Your task to perform on an android device: check android version Image 0: 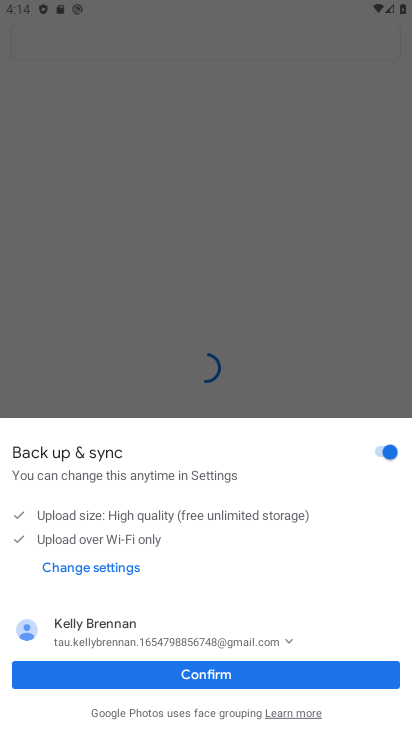
Step 0: press home button
Your task to perform on an android device: check android version Image 1: 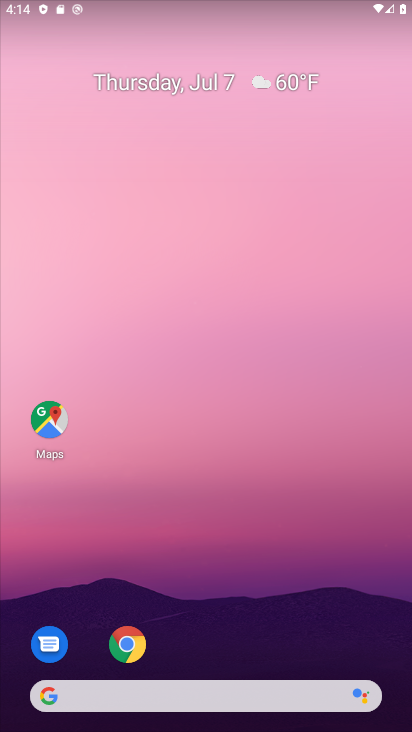
Step 1: drag from (219, 629) to (138, 253)
Your task to perform on an android device: check android version Image 2: 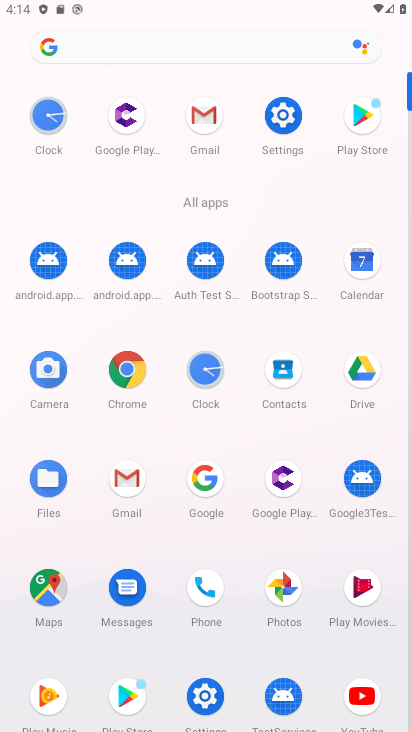
Step 2: click (277, 131)
Your task to perform on an android device: check android version Image 3: 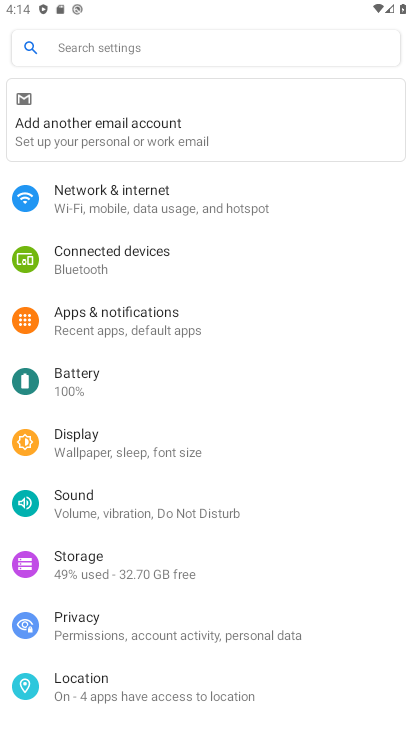
Step 3: drag from (147, 666) to (71, 199)
Your task to perform on an android device: check android version Image 4: 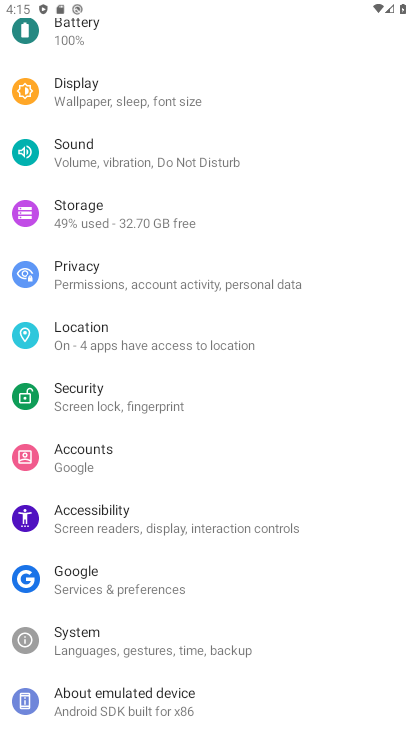
Step 4: click (119, 707)
Your task to perform on an android device: check android version Image 5: 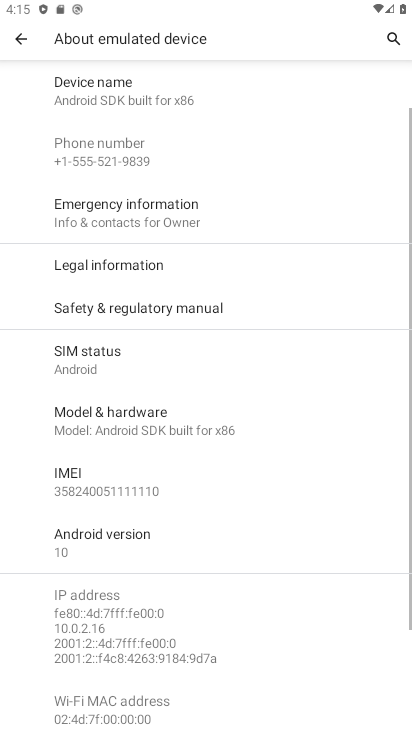
Step 5: click (182, 539)
Your task to perform on an android device: check android version Image 6: 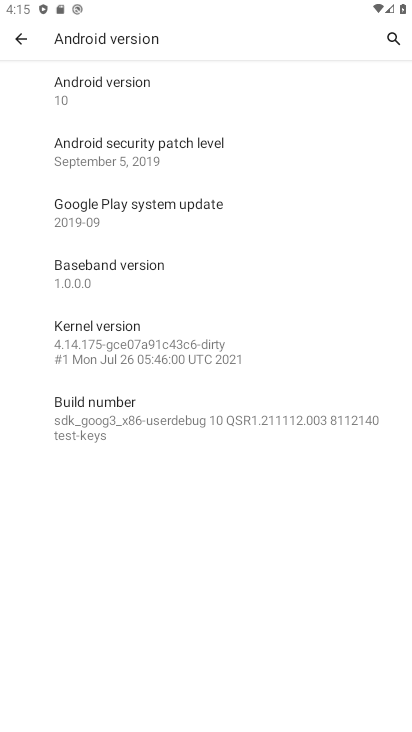
Step 6: task complete